Your task to perform on an android device: turn off data saver in the chrome app Image 0: 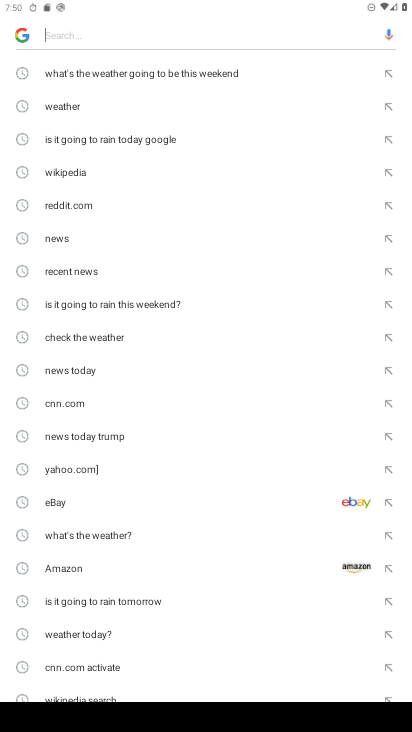
Step 0: press home button
Your task to perform on an android device: turn off data saver in the chrome app Image 1: 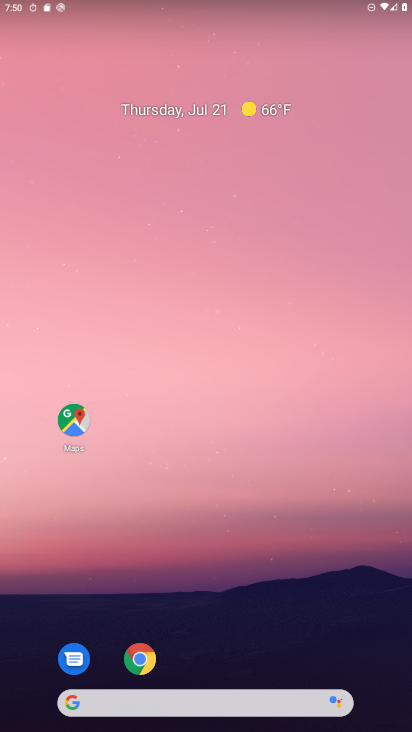
Step 1: click (139, 660)
Your task to perform on an android device: turn off data saver in the chrome app Image 2: 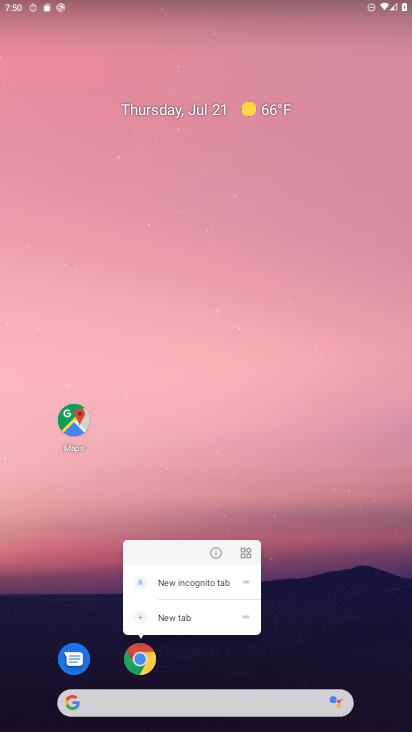
Step 2: click (218, 552)
Your task to perform on an android device: turn off data saver in the chrome app Image 3: 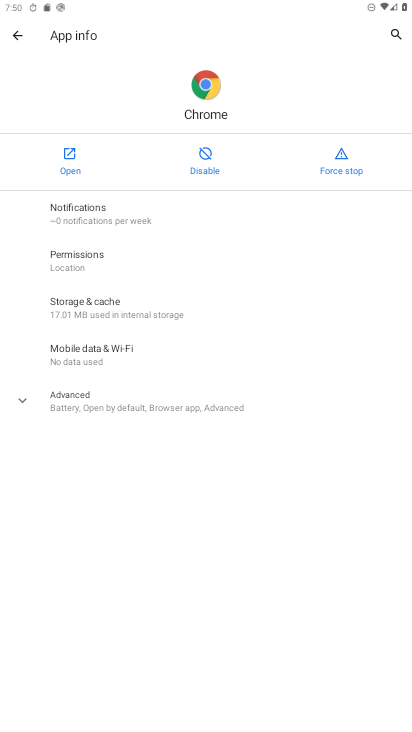
Step 3: click (59, 157)
Your task to perform on an android device: turn off data saver in the chrome app Image 4: 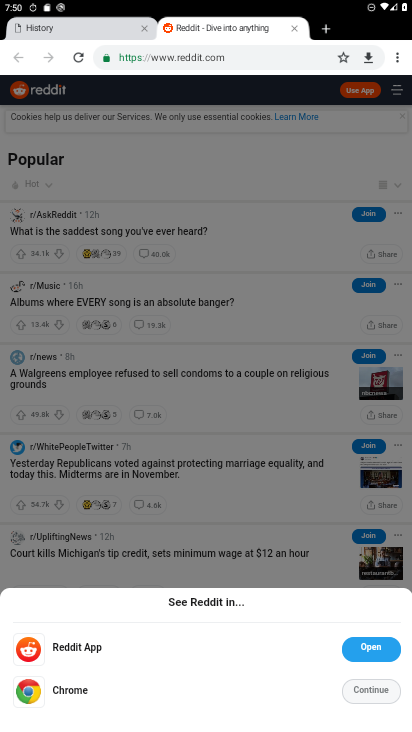
Step 4: drag from (396, 52) to (324, 383)
Your task to perform on an android device: turn off data saver in the chrome app Image 5: 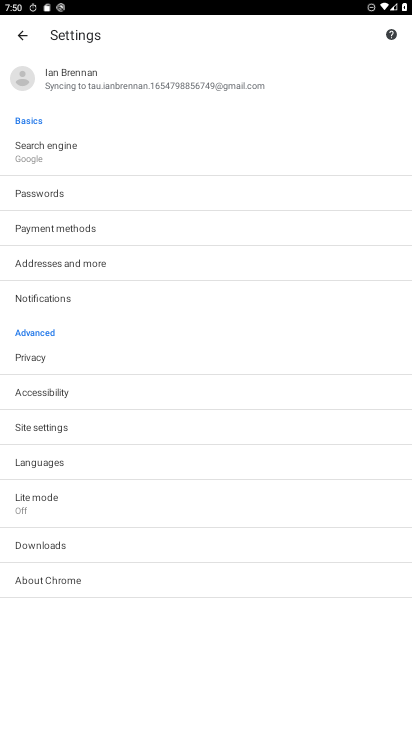
Step 5: click (52, 503)
Your task to perform on an android device: turn off data saver in the chrome app Image 6: 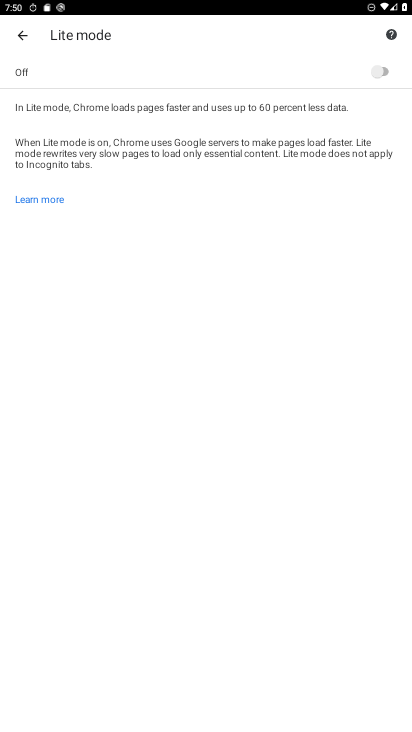
Step 6: task complete